Your task to perform on an android device: Add "razer naga" to the cart on target.com Image 0: 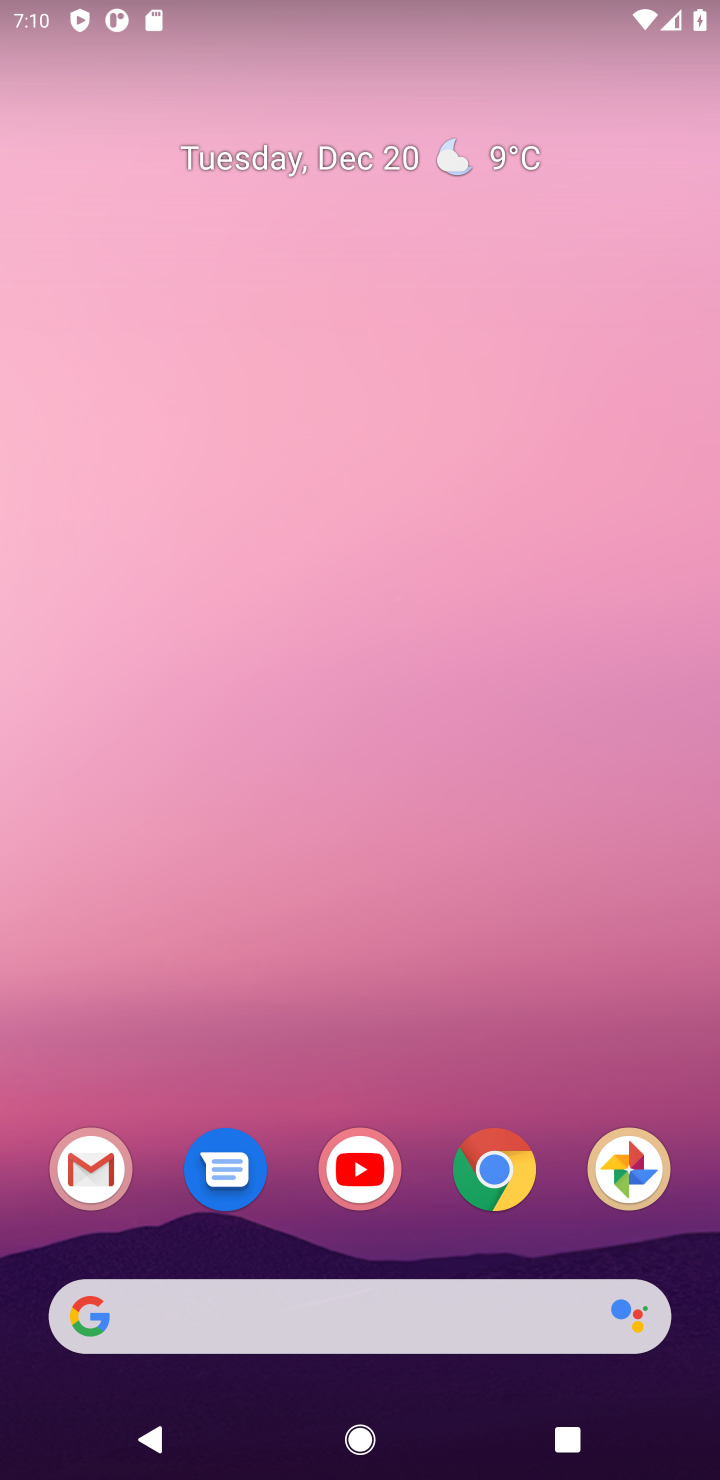
Step 0: click (475, 1199)
Your task to perform on an android device: Add "razer naga" to the cart on target.com Image 1: 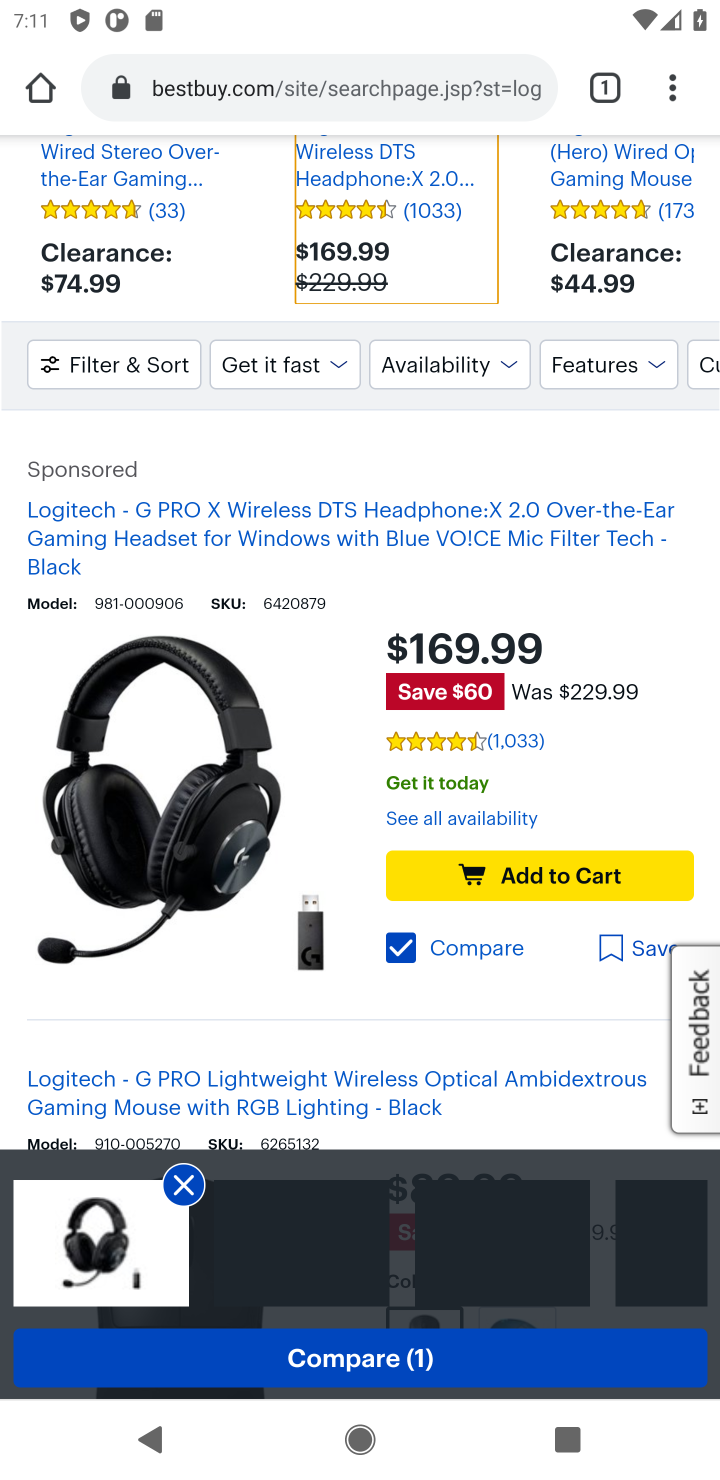
Step 1: click (294, 87)
Your task to perform on an android device: Add "razer naga" to the cart on target.com Image 2: 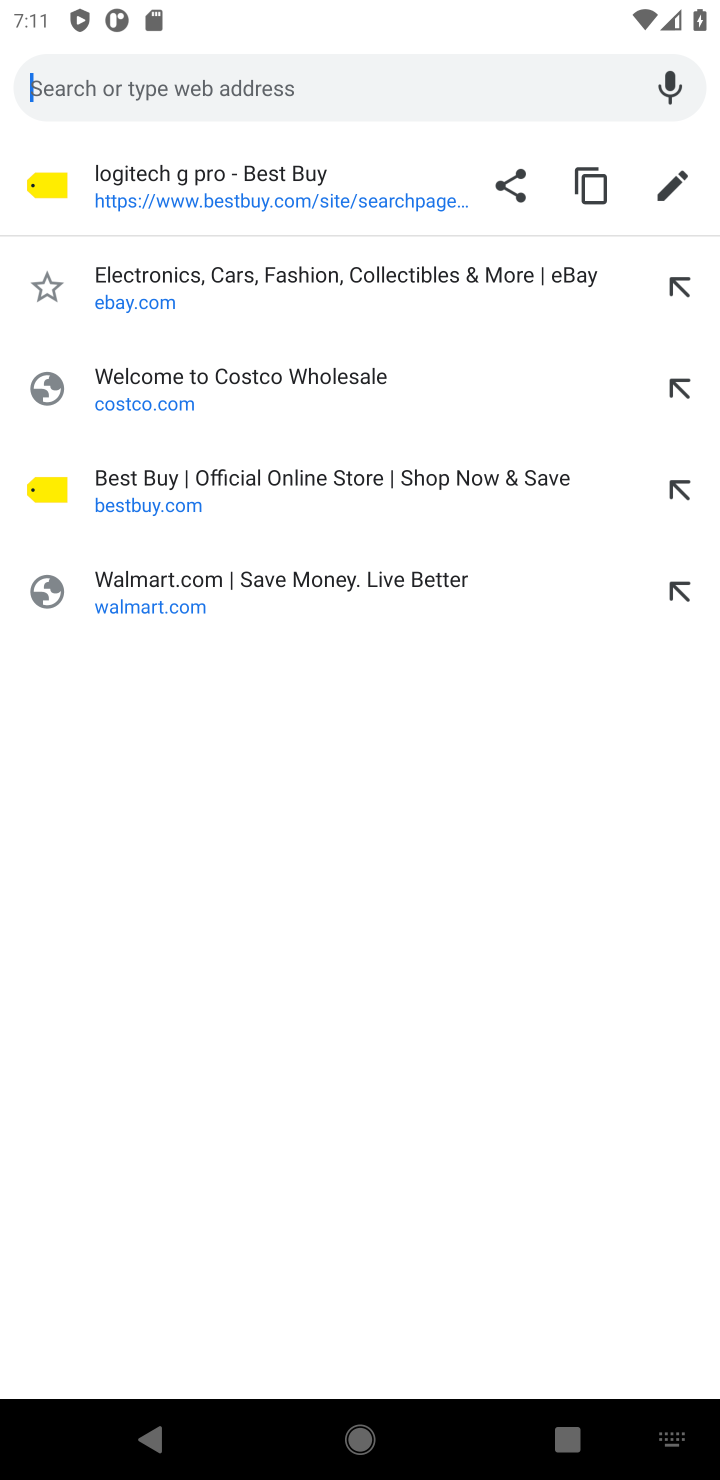
Step 2: type "target"
Your task to perform on an android device: Add "razer naga" to the cart on target.com Image 3: 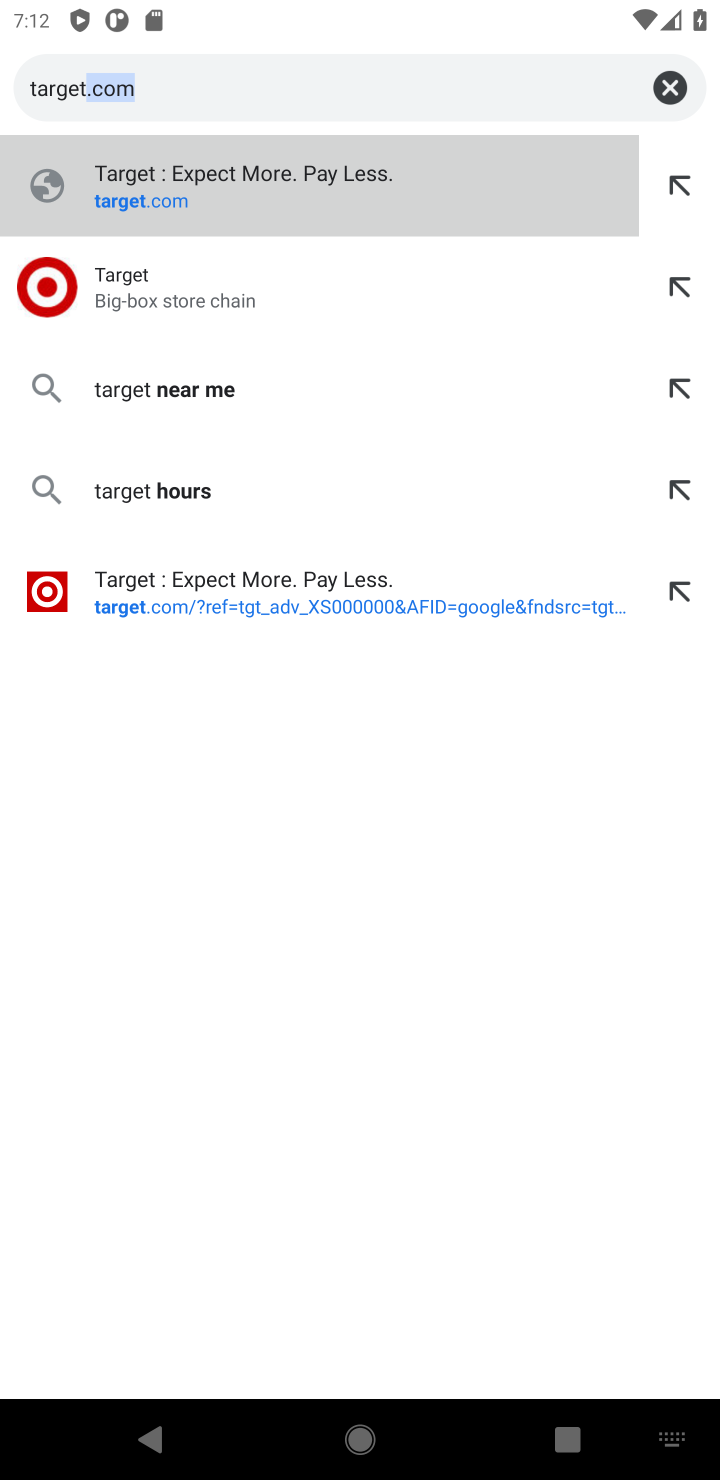
Step 3: click (237, 197)
Your task to perform on an android device: Add "razer naga" to the cart on target.com Image 4: 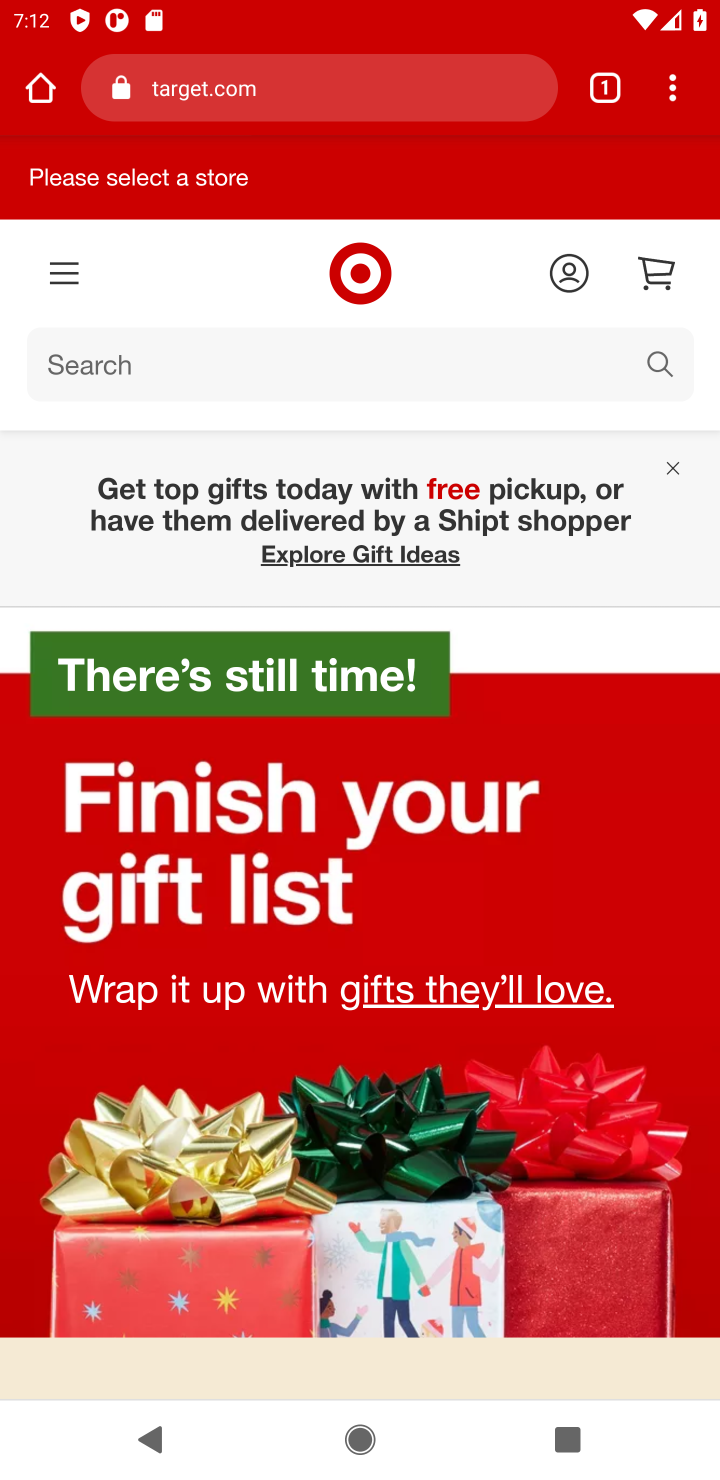
Step 4: click (195, 381)
Your task to perform on an android device: Add "razer naga" to the cart on target.com Image 5: 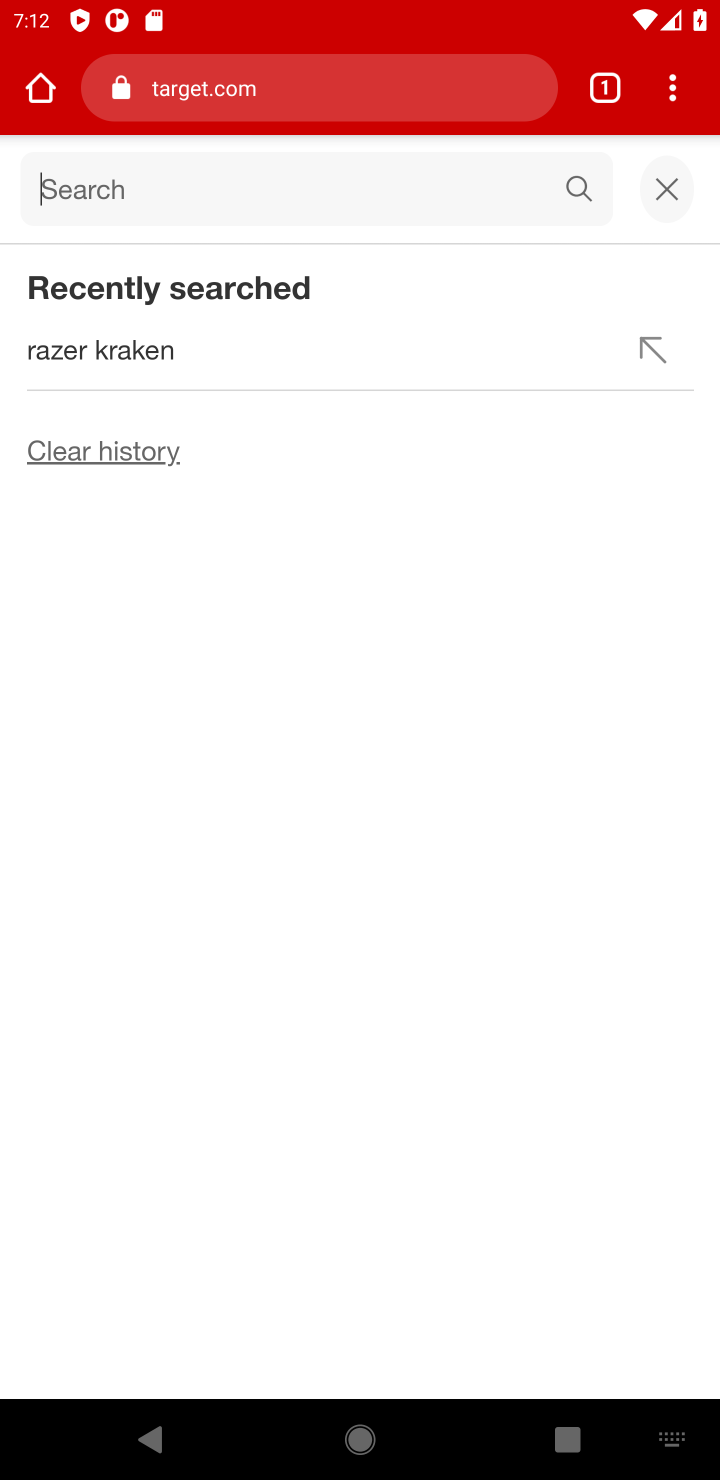
Step 5: task complete